Your task to perform on an android device: check google app version Image 0: 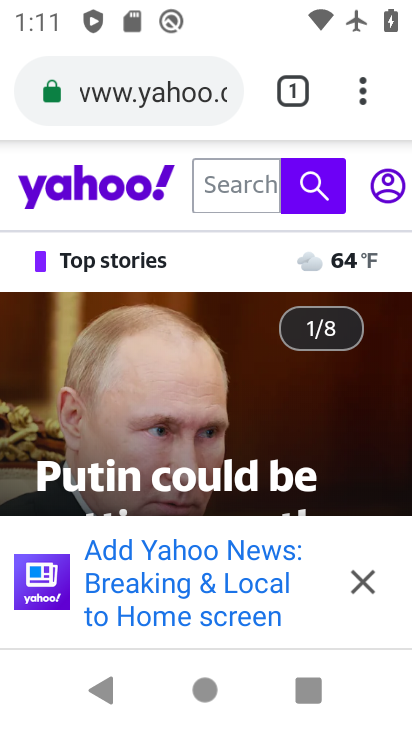
Step 0: press home button
Your task to perform on an android device: check google app version Image 1: 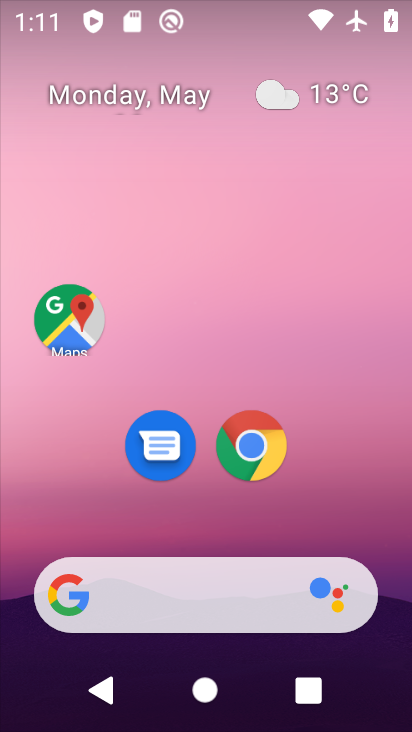
Step 1: drag from (399, 604) to (288, 94)
Your task to perform on an android device: check google app version Image 2: 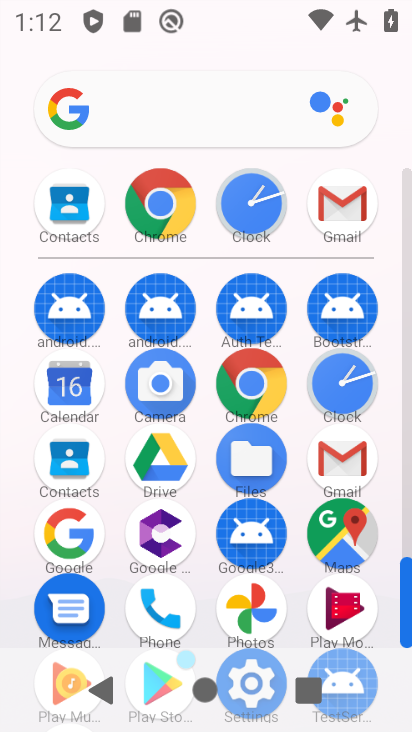
Step 2: click (82, 518)
Your task to perform on an android device: check google app version Image 3: 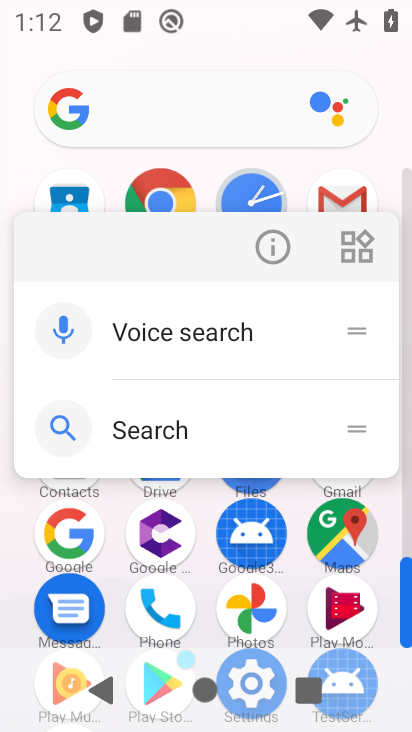
Step 3: click (278, 241)
Your task to perform on an android device: check google app version Image 4: 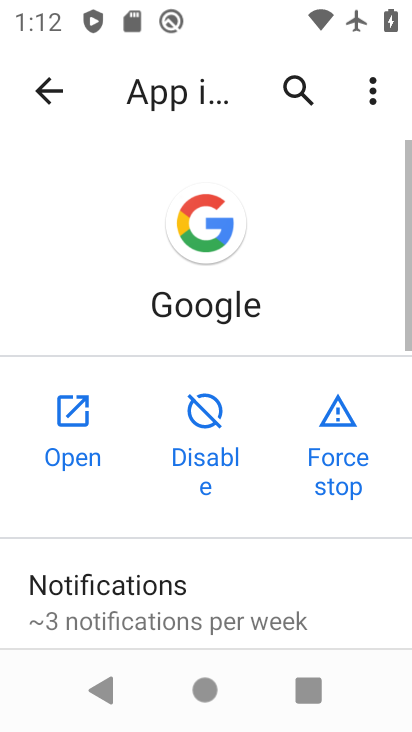
Step 4: drag from (267, 584) to (207, 50)
Your task to perform on an android device: check google app version Image 5: 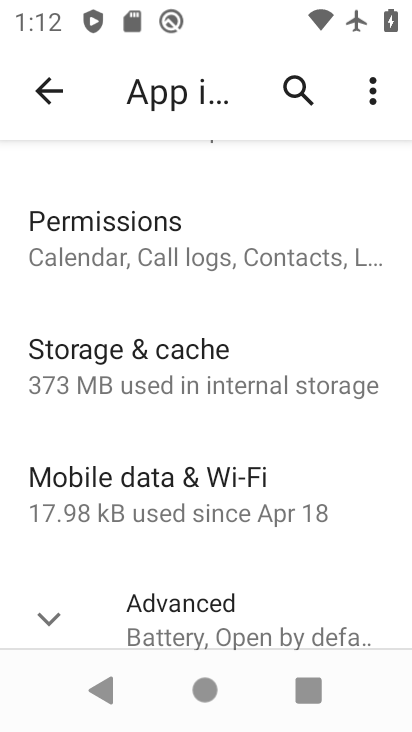
Step 5: drag from (193, 537) to (200, 148)
Your task to perform on an android device: check google app version Image 6: 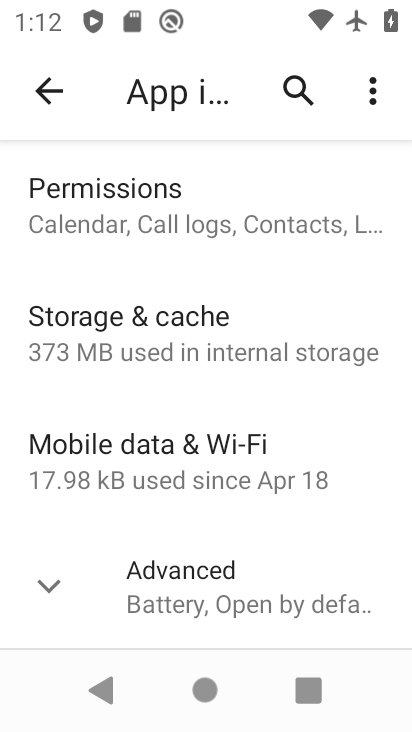
Step 6: click (60, 585)
Your task to perform on an android device: check google app version Image 7: 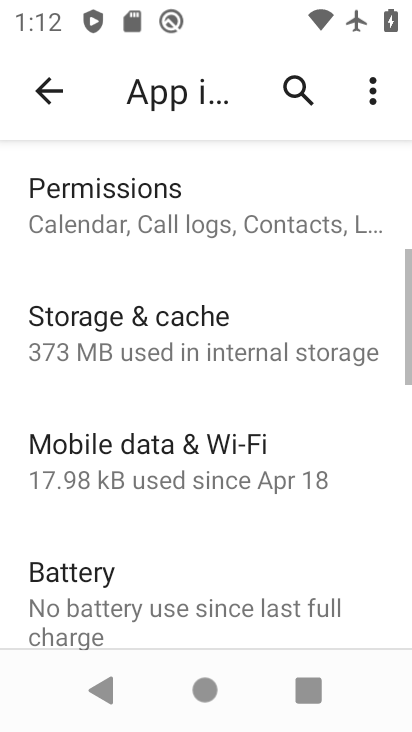
Step 7: task complete